Your task to perform on an android device: Empty the shopping cart on newegg.com. Search for logitech g933 on newegg.com, select the first entry, add it to the cart, then select checkout. Image 0: 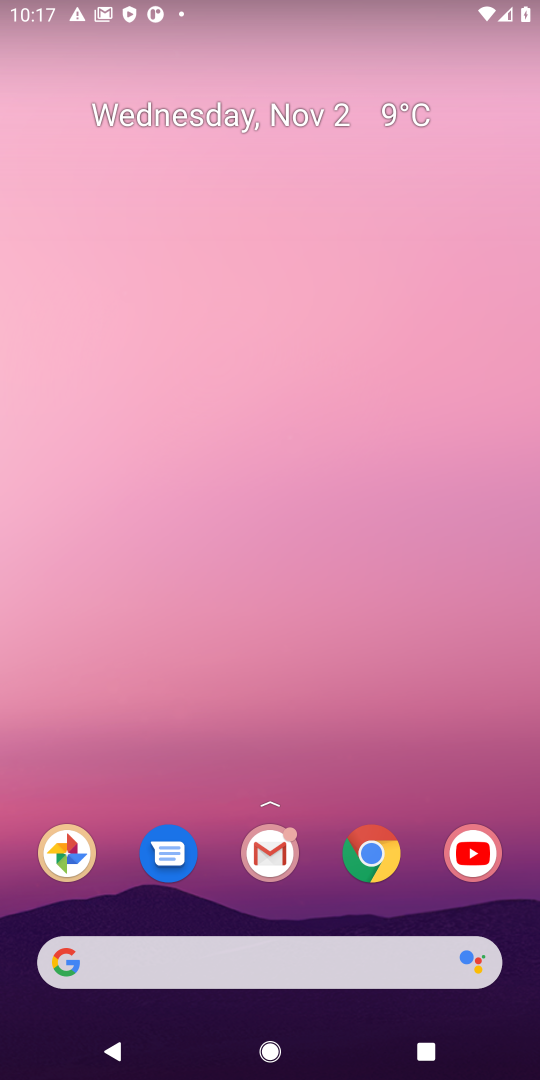
Step 0: click (379, 849)
Your task to perform on an android device: Empty the shopping cart on newegg.com. Search for logitech g933 on newegg.com, select the first entry, add it to the cart, then select checkout. Image 1: 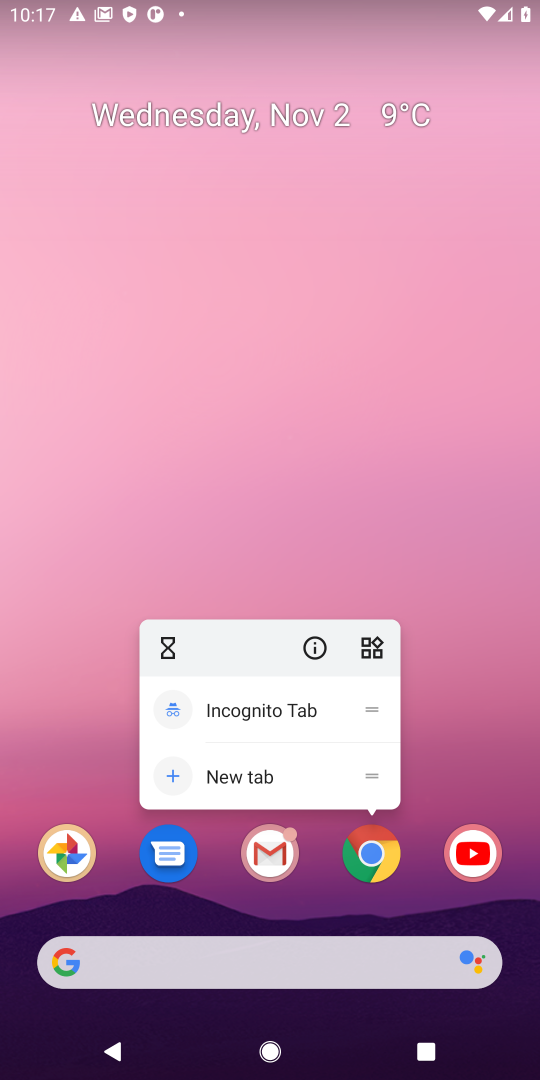
Step 1: click (376, 843)
Your task to perform on an android device: Empty the shopping cart on newegg.com. Search for logitech g933 on newegg.com, select the first entry, add it to the cart, then select checkout. Image 2: 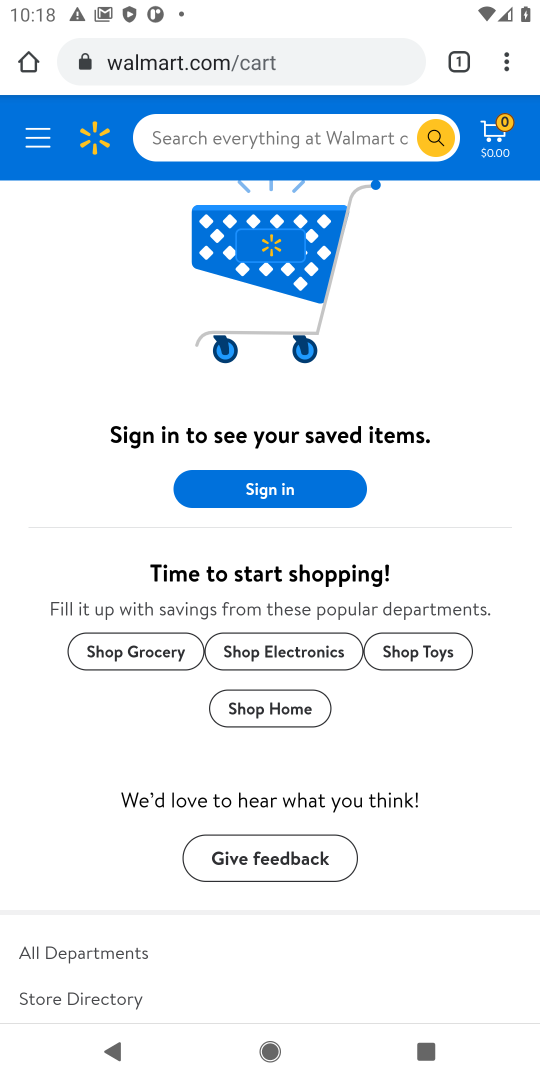
Step 2: click (258, 62)
Your task to perform on an android device: Empty the shopping cart on newegg.com. Search for logitech g933 on newegg.com, select the first entry, add it to the cart, then select checkout. Image 3: 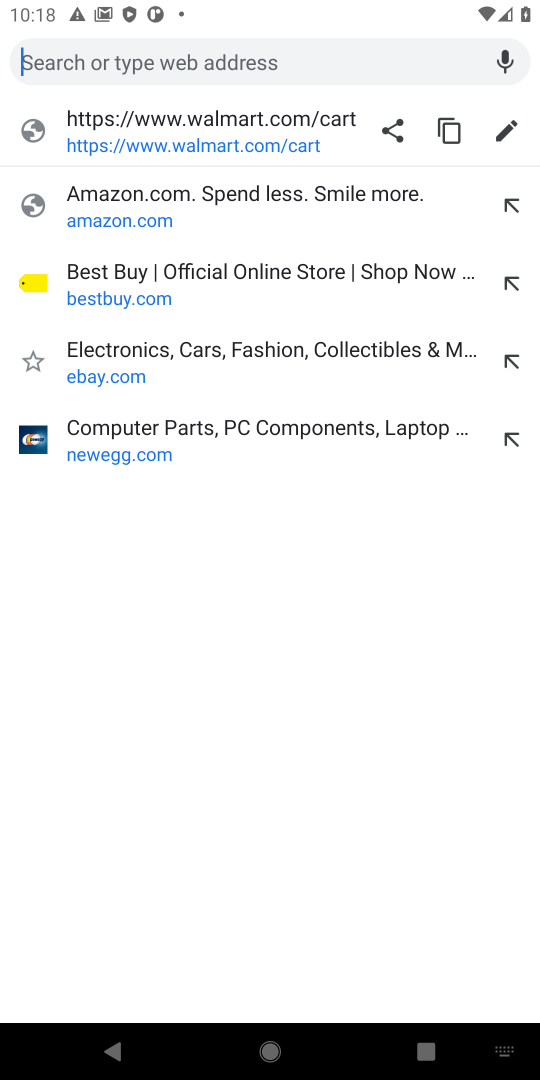
Step 3: type "newegg.com"
Your task to perform on an android device: Empty the shopping cart on newegg.com. Search for logitech g933 on newegg.com, select the first entry, add it to the cart, then select checkout. Image 4: 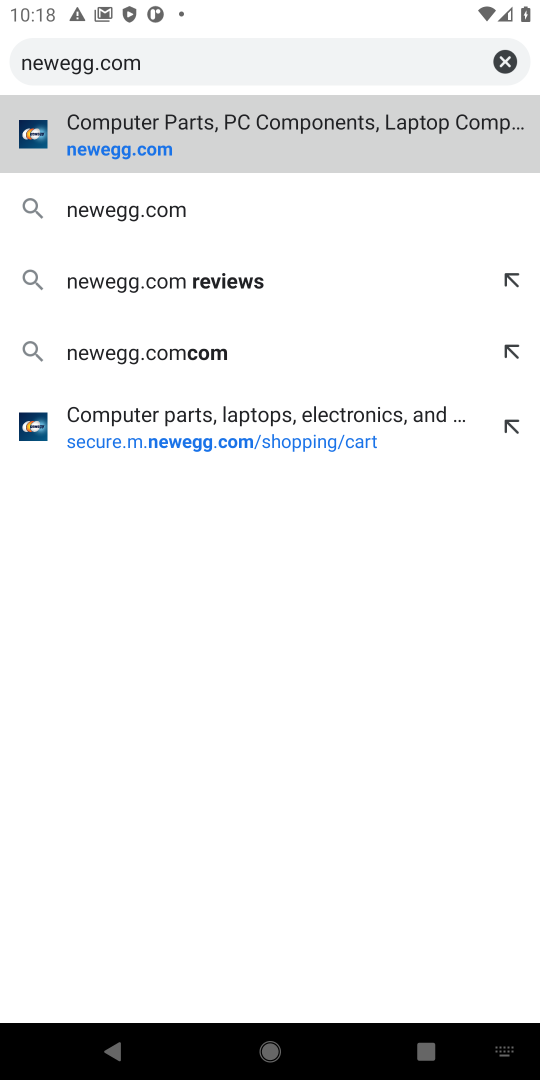
Step 4: press enter
Your task to perform on an android device: Empty the shopping cart on newegg.com. Search for logitech g933 on newegg.com, select the first entry, add it to the cart, then select checkout. Image 5: 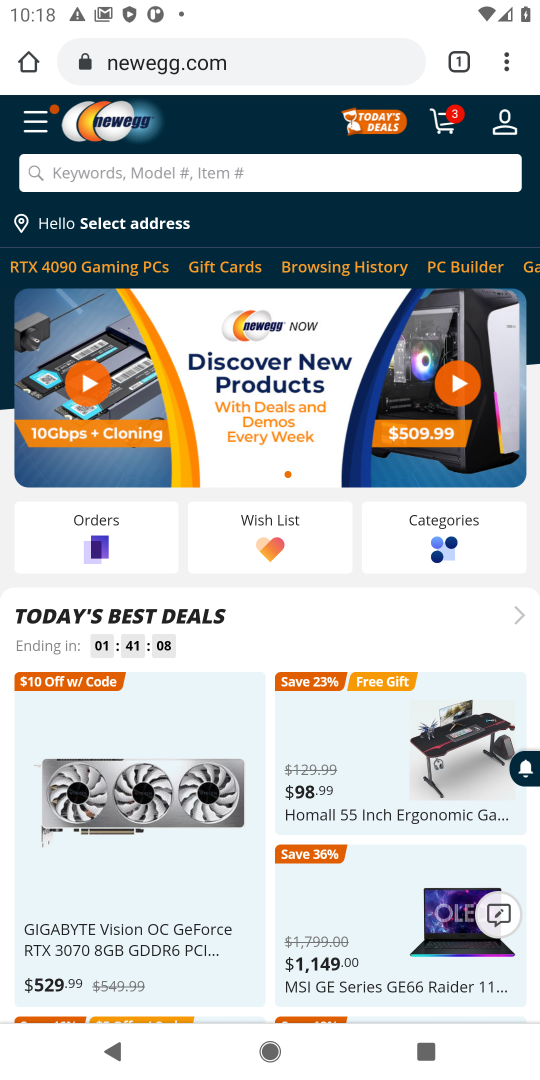
Step 5: click (283, 173)
Your task to perform on an android device: Empty the shopping cart on newegg.com. Search for logitech g933 on newegg.com, select the first entry, add it to the cart, then select checkout. Image 6: 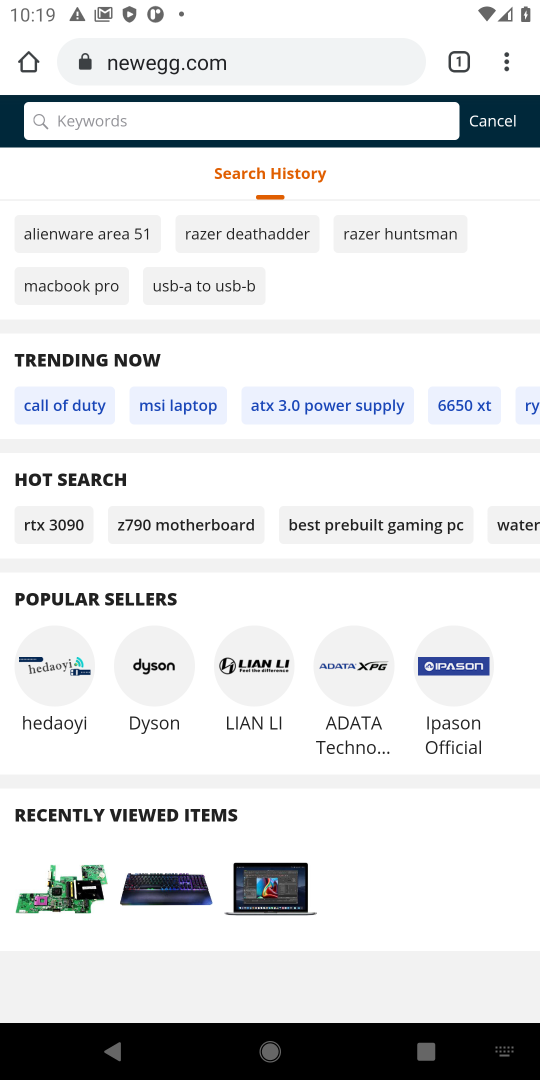
Step 6: type " logitech g933"
Your task to perform on an android device: Empty the shopping cart on newegg.com. Search for logitech g933 on newegg.com, select the first entry, add it to the cart, then select checkout. Image 7: 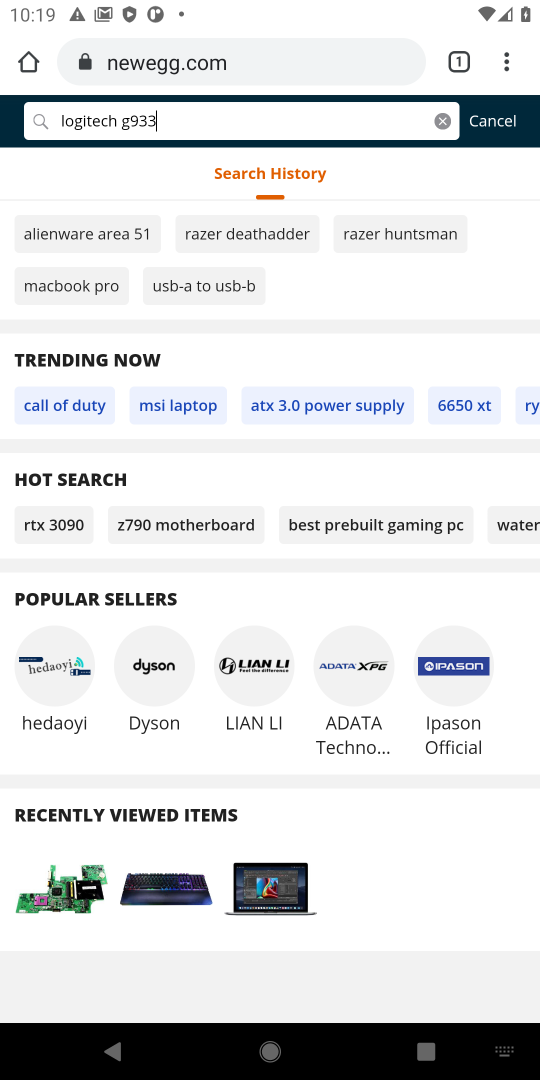
Step 7: press enter
Your task to perform on an android device: Empty the shopping cart on newegg.com. Search for logitech g933 on newegg.com, select the first entry, add it to the cart, then select checkout. Image 8: 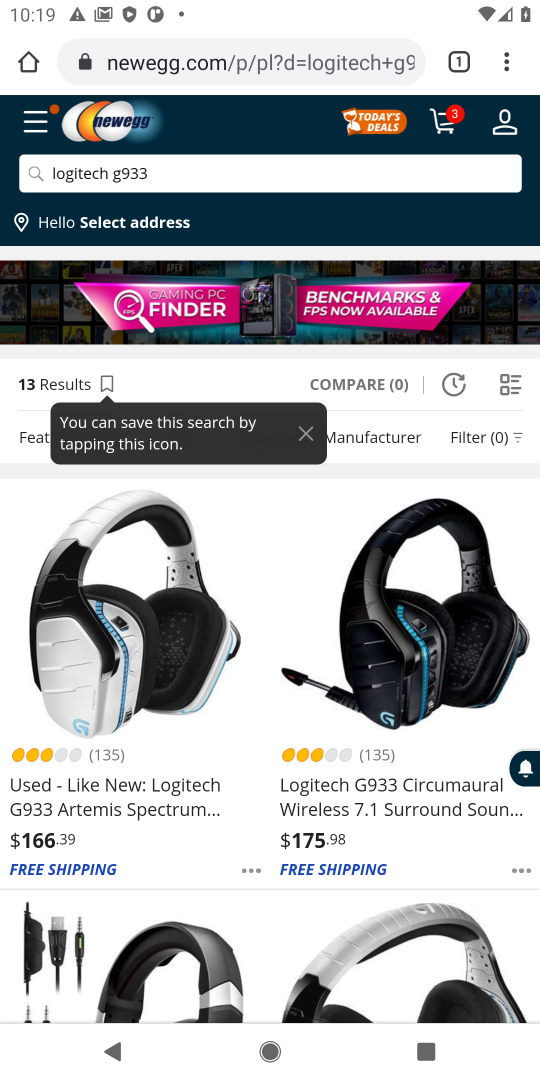
Step 8: click (144, 724)
Your task to perform on an android device: Empty the shopping cart on newegg.com. Search for logitech g933 on newegg.com, select the first entry, add it to the cart, then select checkout. Image 9: 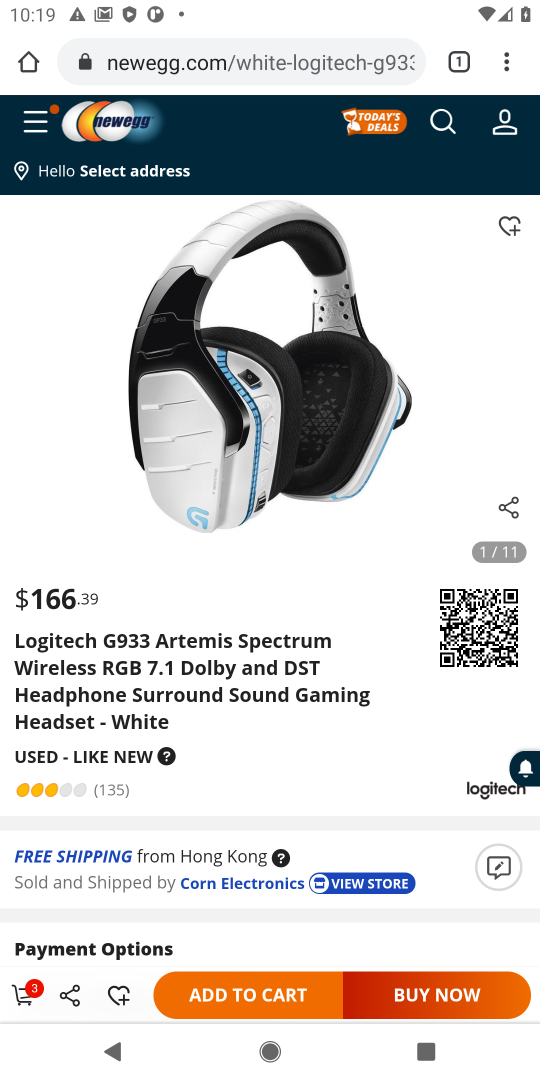
Step 9: click (230, 997)
Your task to perform on an android device: Empty the shopping cart on newegg.com. Search for logitech g933 on newegg.com, select the first entry, add it to the cart, then select checkout. Image 10: 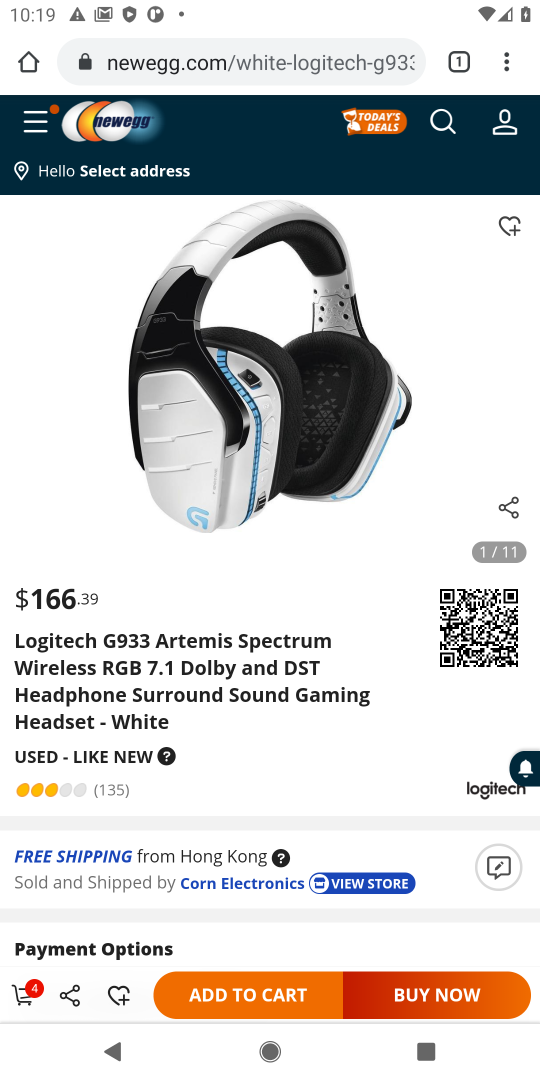
Step 10: click (28, 989)
Your task to perform on an android device: Empty the shopping cart on newegg.com. Search for logitech g933 on newegg.com, select the first entry, add it to the cart, then select checkout. Image 11: 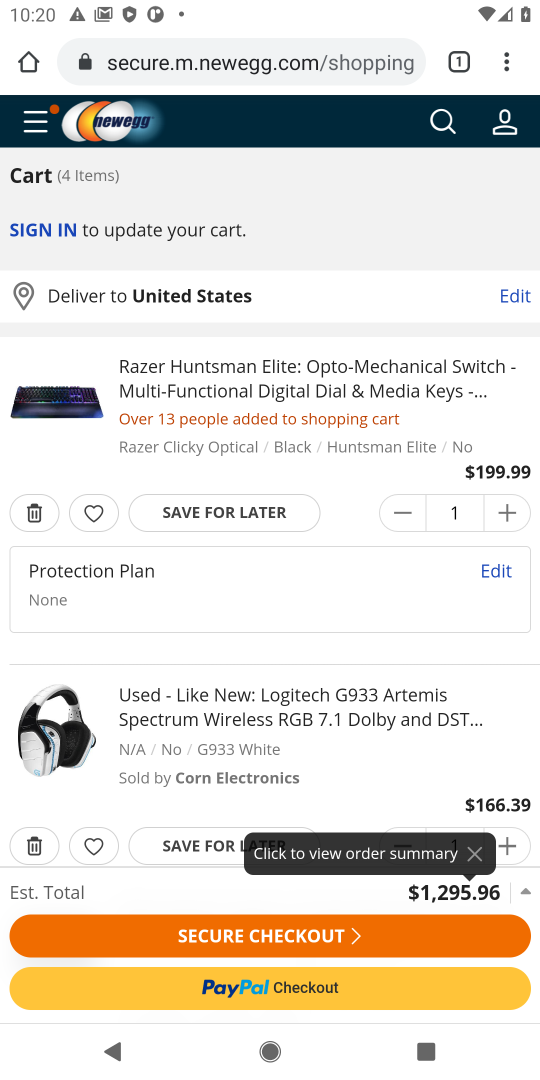
Step 11: click (32, 509)
Your task to perform on an android device: Empty the shopping cart on newegg.com. Search for logitech g933 on newegg.com, select the first entry, add it to the cart, then select checkout. Image 12: 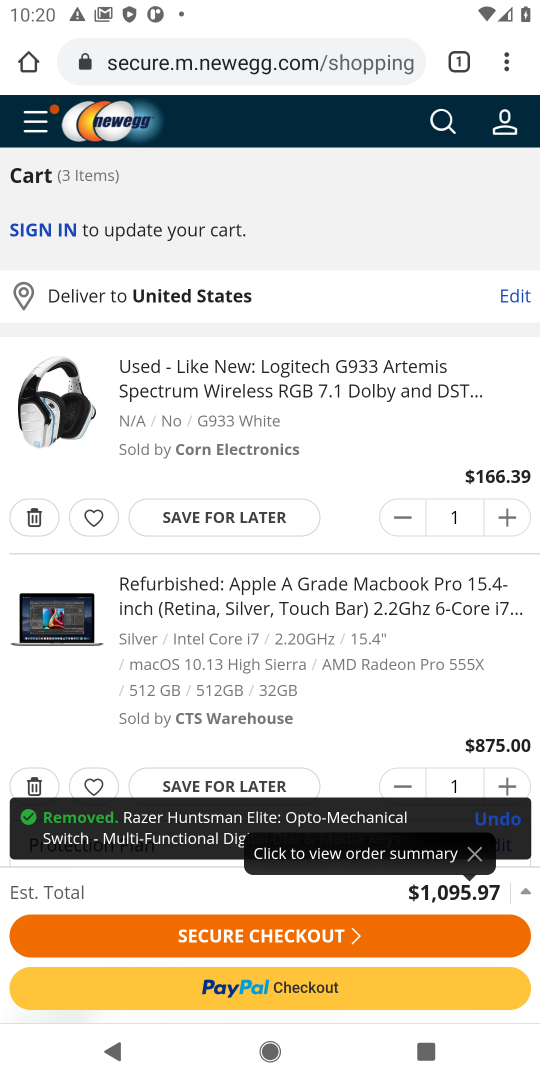
Step 12: drag from (67, 699) to (304, 351)
Your task to perform on an android device: Empty the shopping cart on newegg.com. Search for logitech g933 on newegg.com, select the first entry, add it to the cart, then select checkout. Image 13: 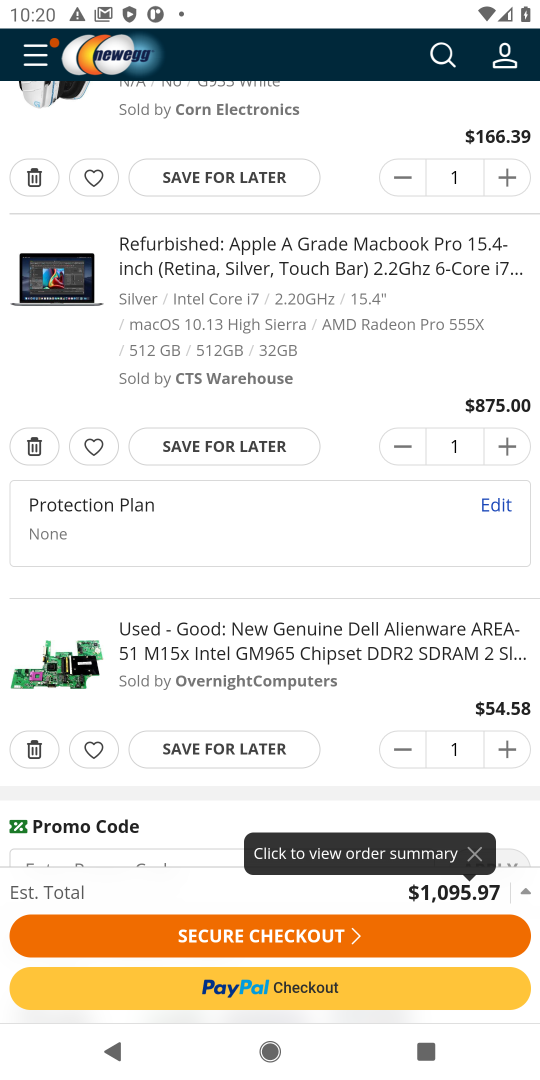
Step 13: click (31, 443)
Your task to perform on an android device: Empty the shopping cart on newegg.com. Search for logitech g933 on newegg.com, select the first entry, add it to the cart, then select checkout. Image 14: 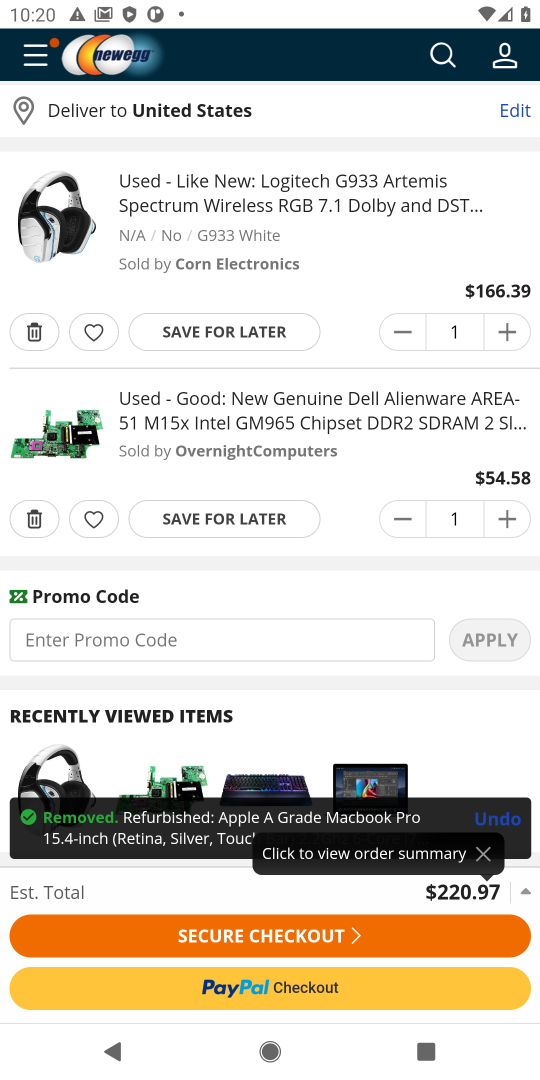
Step 14: click (37, 525)
Your task to perform on an android device: Empty the shopping cart on newegg.com. Search for logitech g933 on newegg.com, select the first entry, add it to the cart, then select checkout. Image 15: 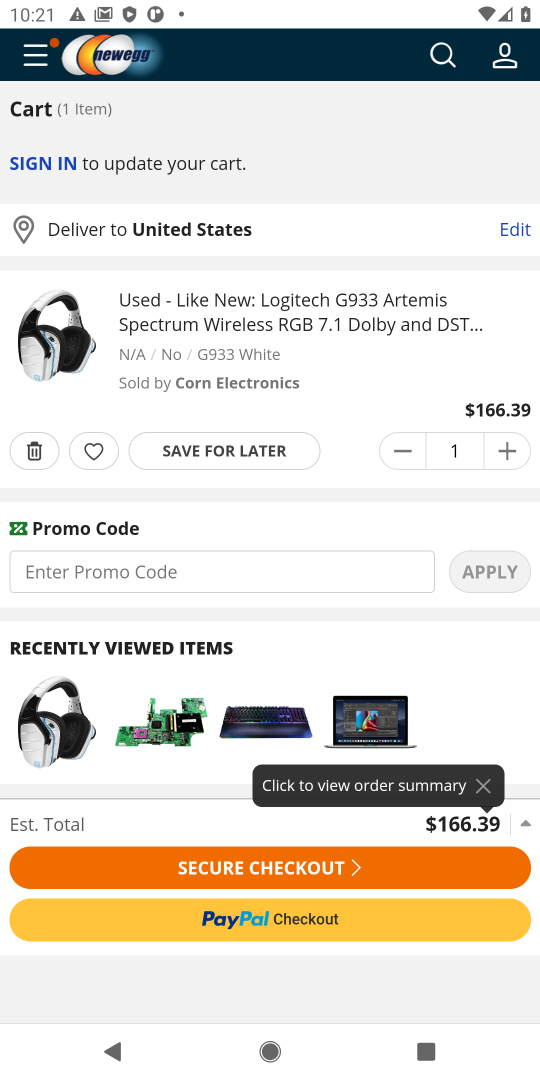
Step 15: click (277, 865)
Your task to perform on an android device: Empty the shopping cart on newegg.com. Search for logitech g933 on newegg.com, select the first entry, add it to the cart, then select checkout. Image 16: 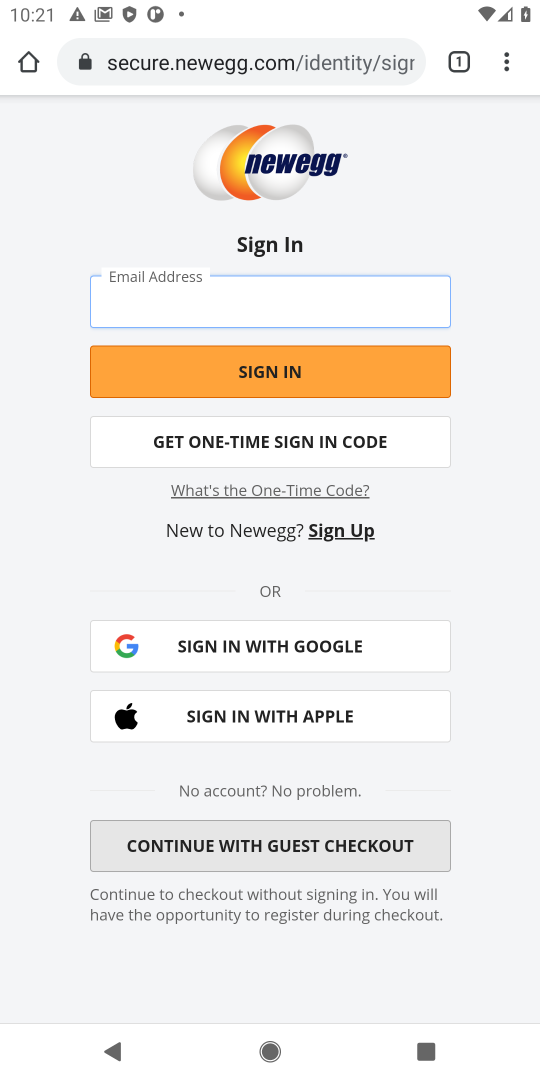
Step 16: task complete